Your task to perform on an android device: Open Google Maps and go to "Timeline" Image 0: 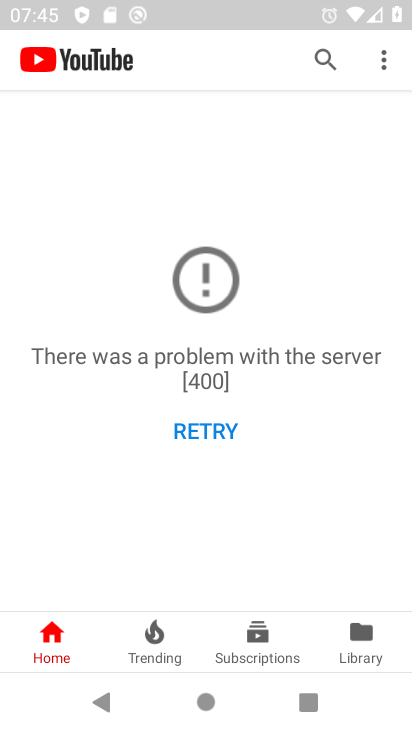
Step 0: press home button
Your task to perform on an android device: Open Google Maps and go to "Timeline" Image 1: 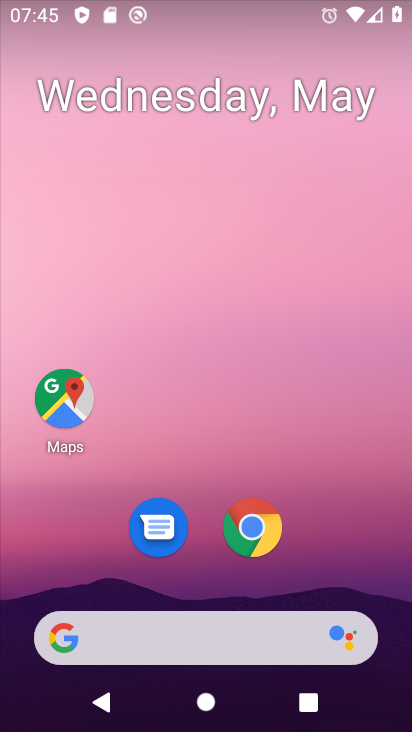
Step 1: drag from (340, 570) to (338, 14)
Your task to perform on an android device: Open Google Maps and go to "Timeline" Image 2: 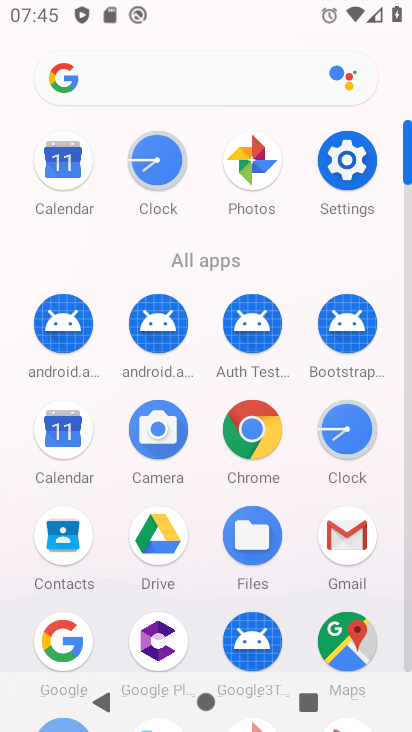
Step 2: click (344, 625)
Your task to perform on an android device: Open Google Maps and go to "Timeline" Image 3: 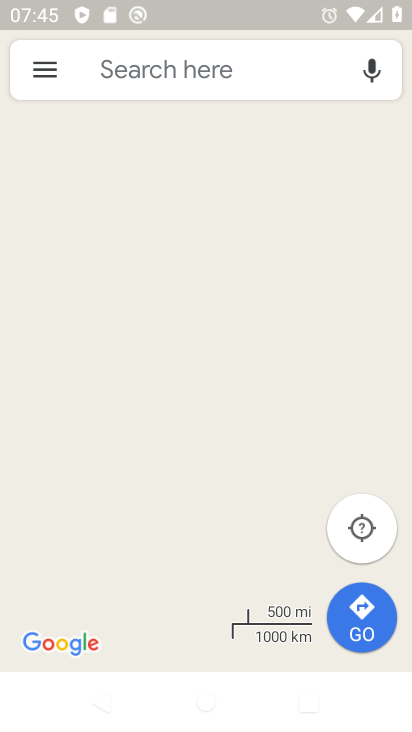
Step 3: click (45, 85)
Your task to perform on an android device: Open Google Maps and go to "Timeline" Image 4: 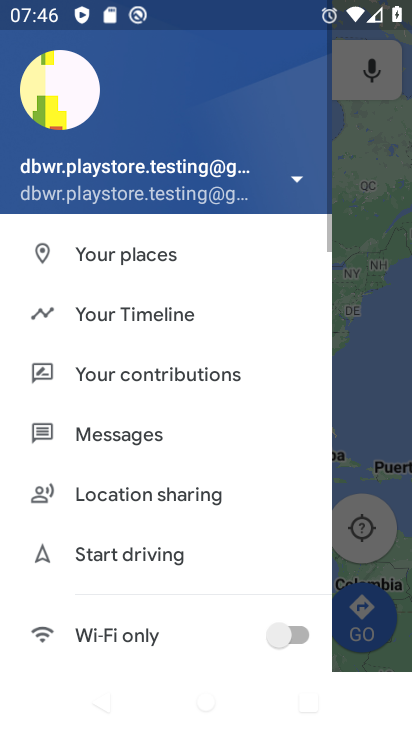
Step 4: click (159, 315)
Your task to perform on an android device: Open Google Maps and go to "Timeline" Image 5: 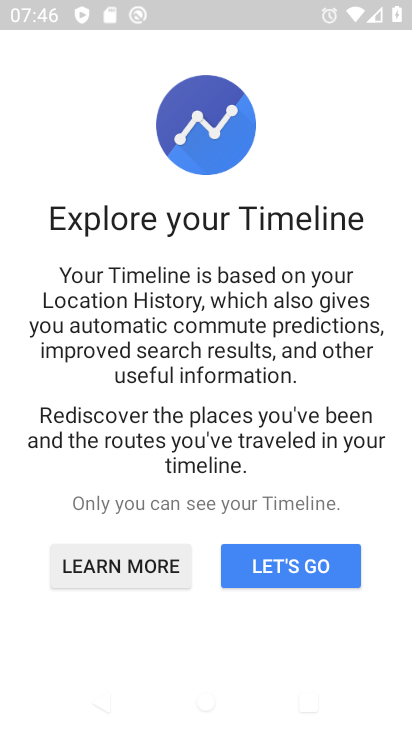
Step 5: click (322, 562)
Your task to perform on an android device: Open Google Maps and go to "Timeline" Image 6: 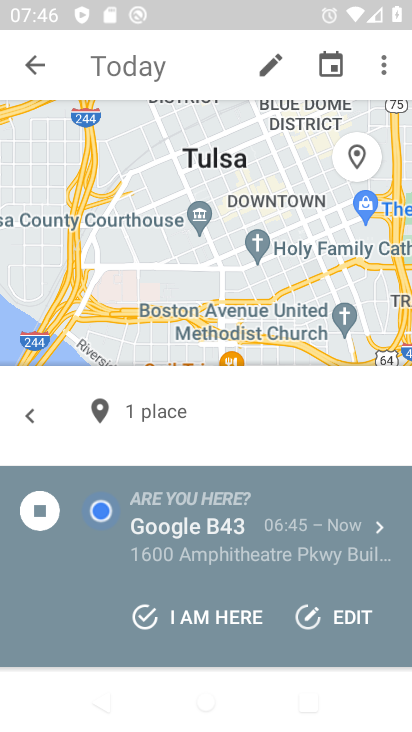
Step 6: task complete